Your task to perform on an android device: Open Wikipedia Image 0: 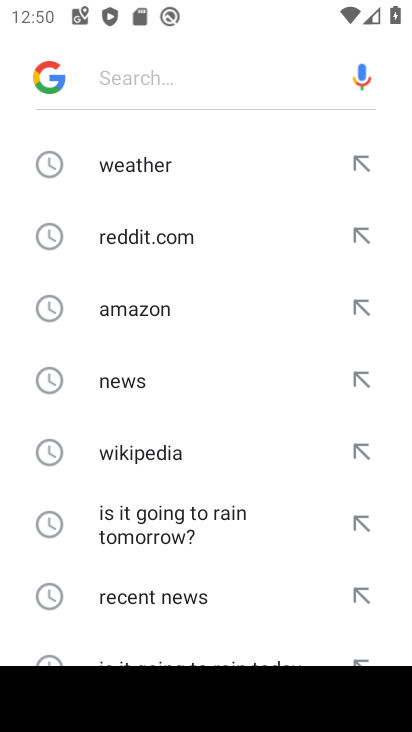
Step 0: press home button
Your task to perform on an android device: Open Wikipedia Image 1: 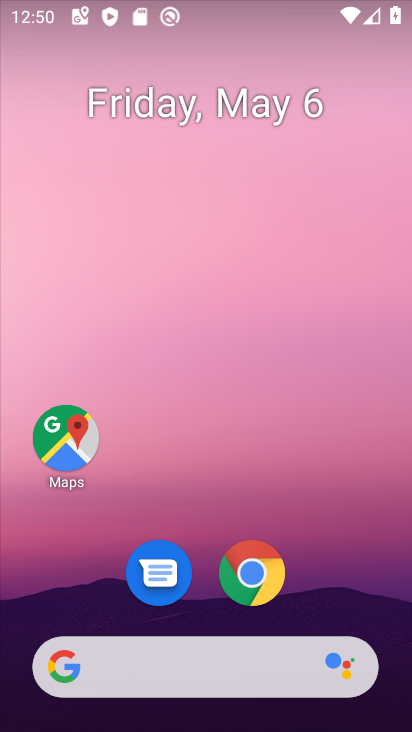
Step 1: click (247, 572)
Your task to perform on an android device: Open Wikipedia Image 2: 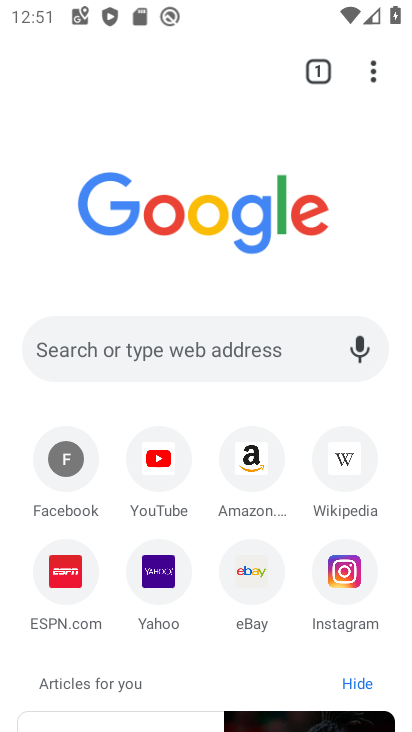
Step 2: click (333, 477)
Your task to perform on an android device: Open Wikipedia Image 3: 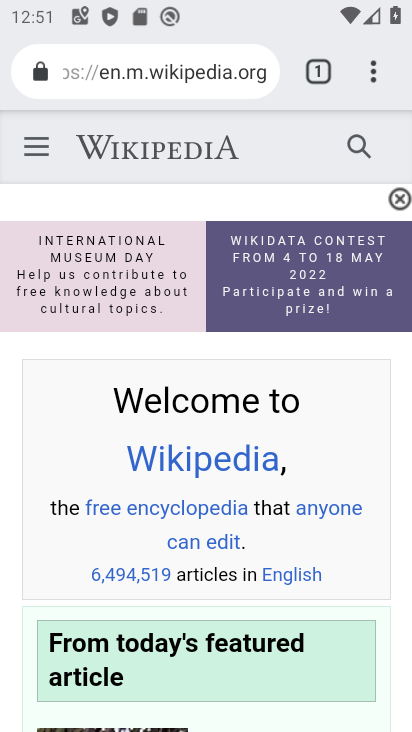
Step 3: task complete